Your task to perform on an android device: change the clock style Image 0: 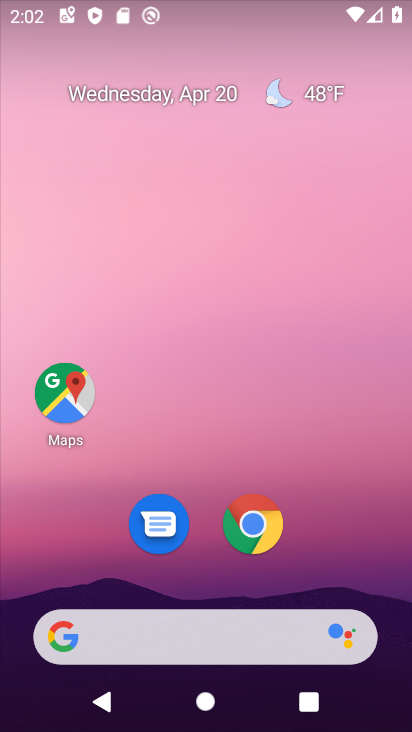
Step 0: drag from (365, 527) to (367, 52)
Your task to perform on an android device: change the clock style Image 1: 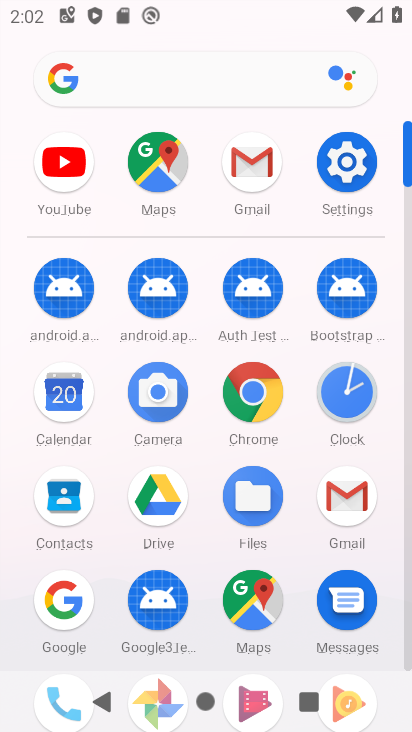
Step 1: click (344, 390)
Your task to perform on an android device: change the clock style Image 2: 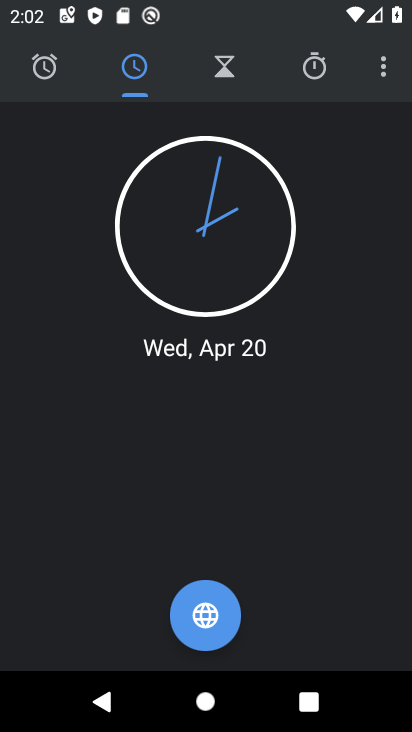
Step 2: click (377, 66)
Your task to perform on an android device: change the clock style Image 3: 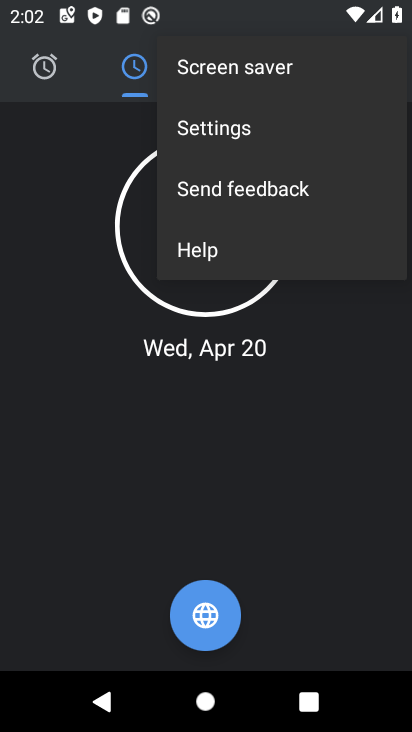
Step 3: click (324, 124)
Your task to perform on an android device: change the clock style Image 4: 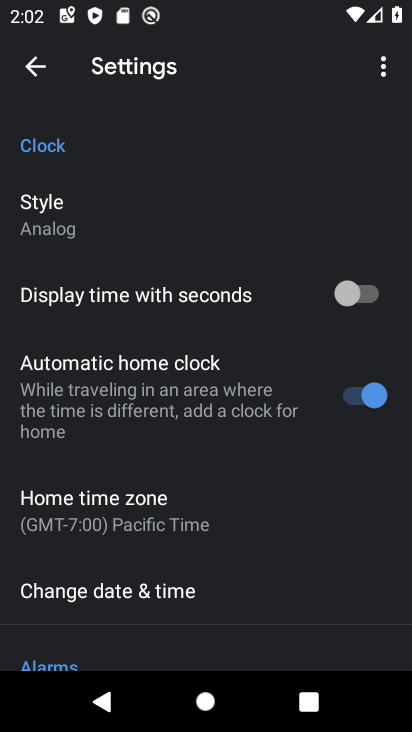
Step 4: click (170, 218)
Your task to perform on an android device: change the clock style Image 5: 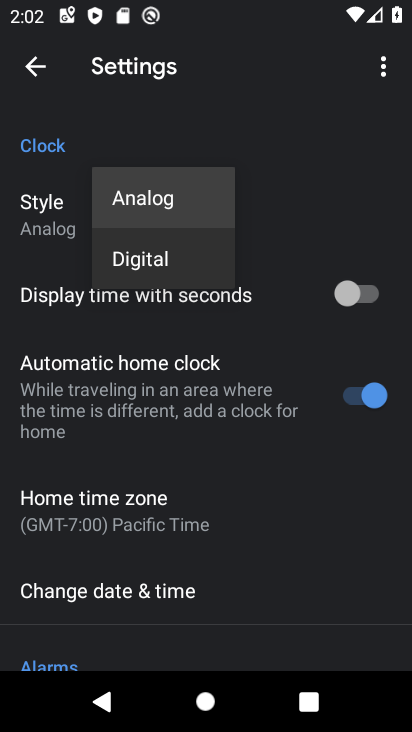
Step 5: click (166, 255)
Your task to perform on an android device: change the clock style Image 6: 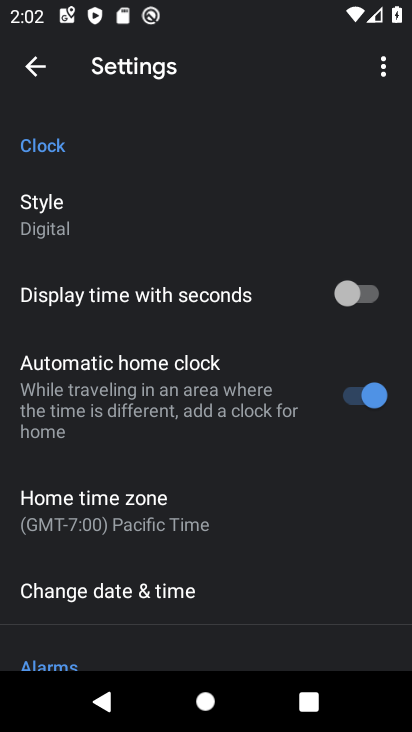
Step 6: task complete